Your task to perform on an android device: turn on notifications settings in the gmail app Image 0: 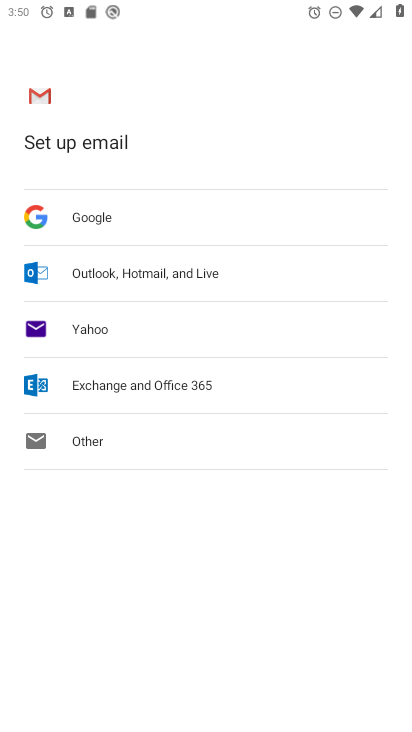
Step 0: press home button
Your task to perform on an android device: turn on notifications settings in the gmail app Image 1: 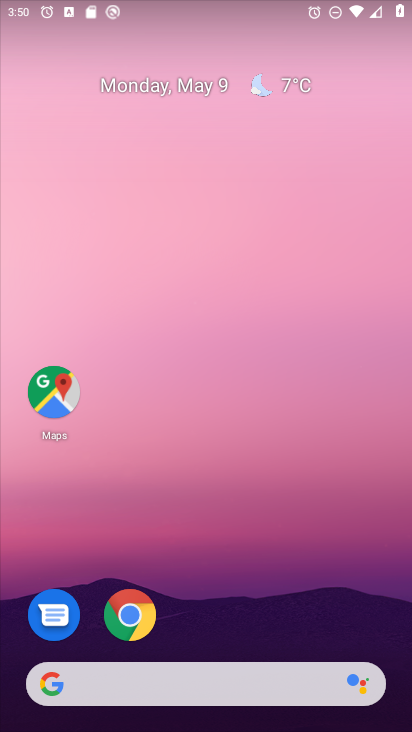
Step 1: drag from (376, 634) to (323, 22)
Your task to perform on an android device: turn on notifications settings in the gmail app Image 2: 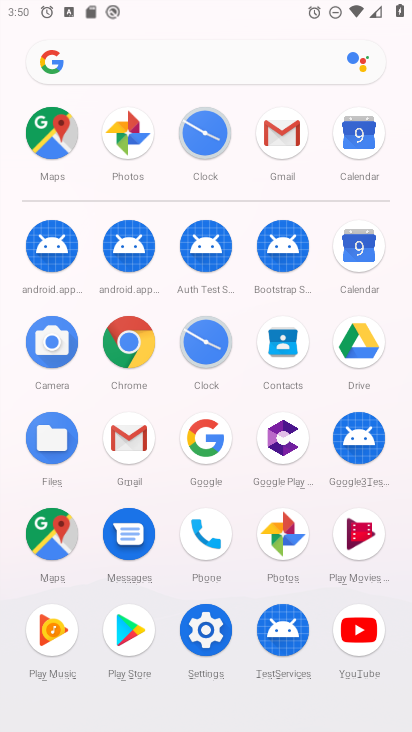
Step 2: click (126, 434)
Your task to perform on an android device: turn on notifications settings in the gmail app Image 3: 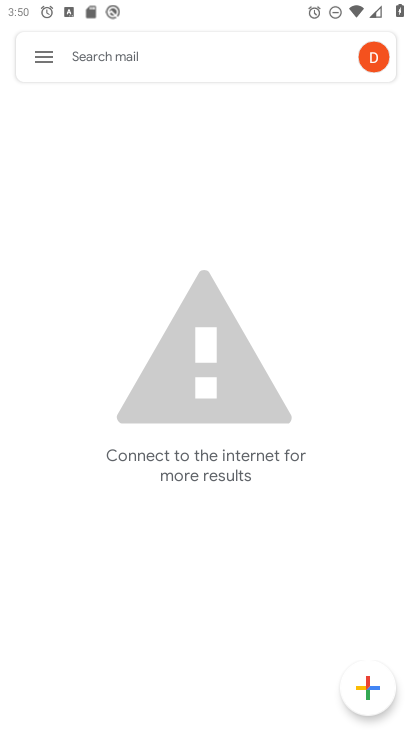
Step 3: click (43, 53)
Your task to perform on an android device: turn on notifications settings in the gmail app Image 4: 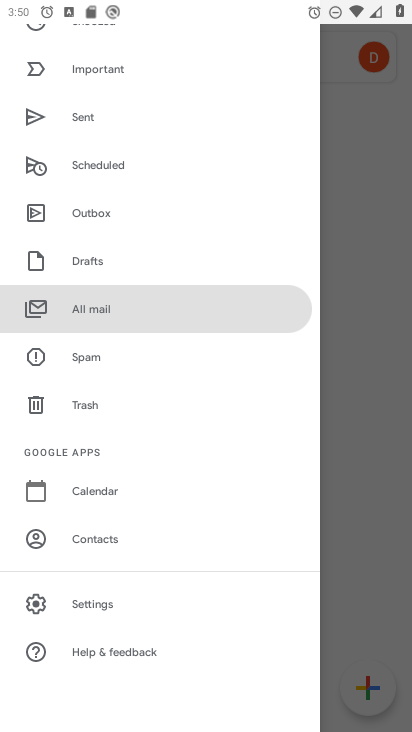
Step 4: click (92, 603)
Your task to perform on an android device: turn on notifications settings in the gmail app Image 5: 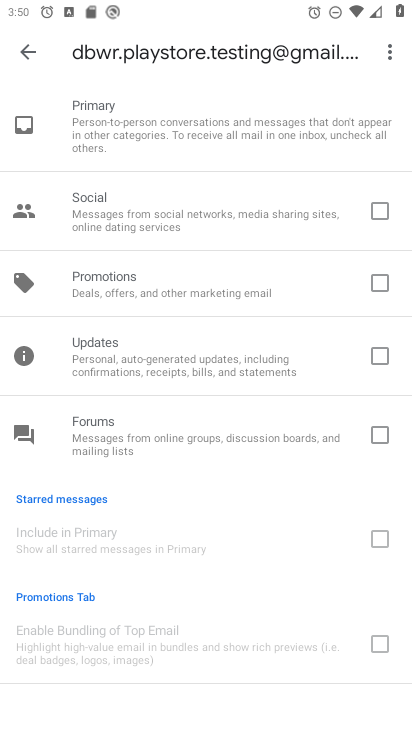
Step 5: press back button
Your task to perform on an android device: turn on notifications settings in the gmail app Image 6: 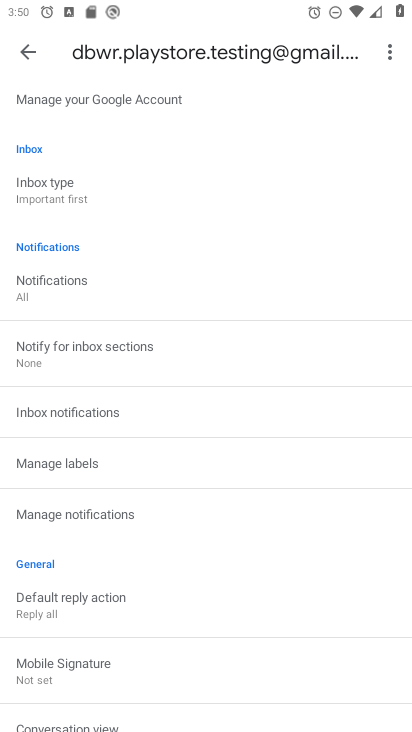
Step 6: click (59, 512)
Your task to perform on an android device: turn on notifications settings in the gmail app Image 7: 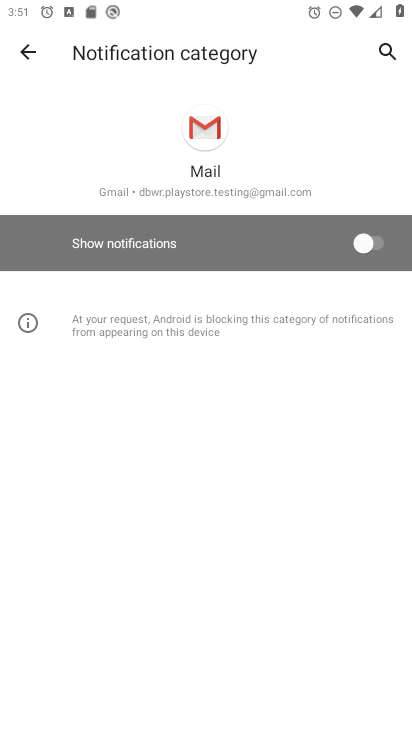
Step 7: click (376, 240)
Your task to perform on an android device: turn on notifications settings in the gmail app Image 8: 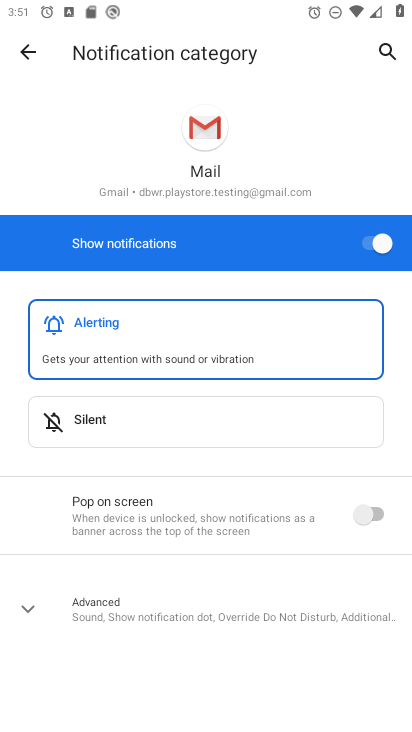
Step 8: task complete